Your task to perform on an android device: Open the Play Movies app and select the watchlist tab. Image 0: 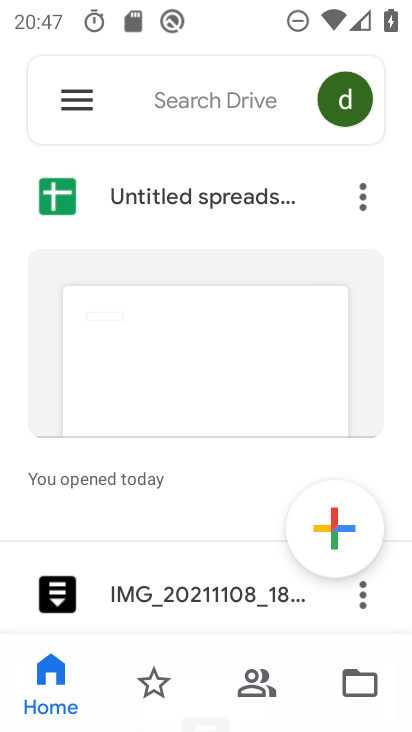
Step 0: press home button
Your task to perform on an android device: Open the Play Movies app and select the watchlist tab. Image 1: 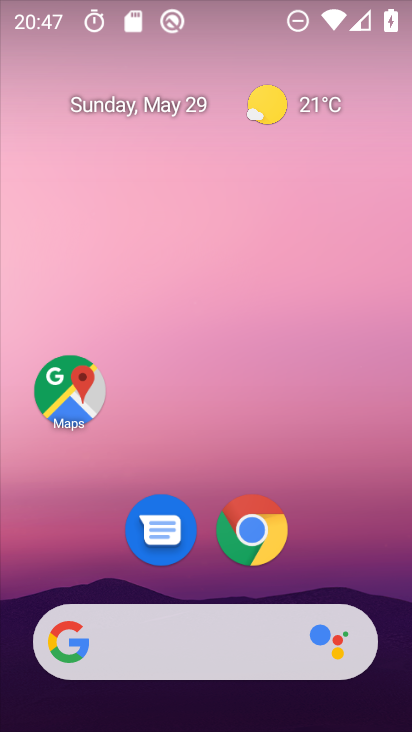
Step 1: drag from (225, 666) to (212, 161)
Your task to perform on an android device: Open the Play Movies app and select the watchlist tab. Image 2: 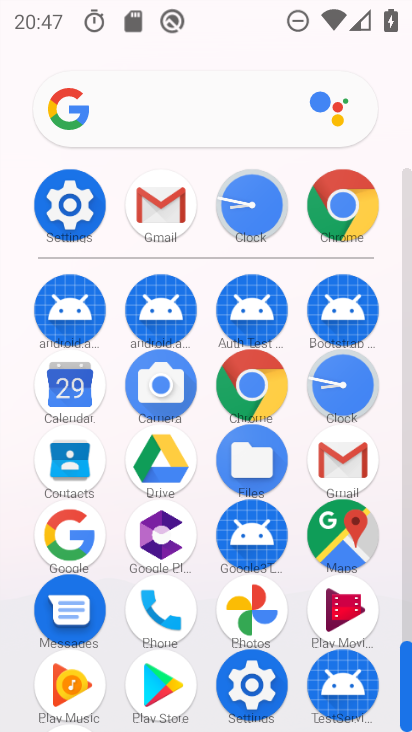
Step 2: click (326, 639)
Your task to perform on an android device: Open the Play Movies app and select the watchlist tab. Image 3: 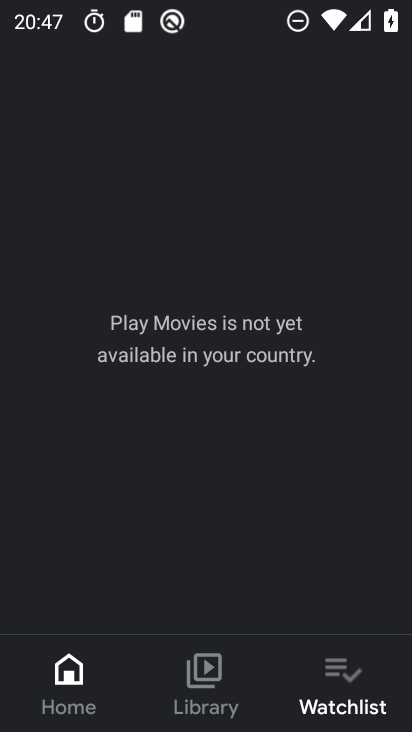
Step 3: task complete